Your task to perform on an android device: stop showing notifications on the lock screen Image 0: 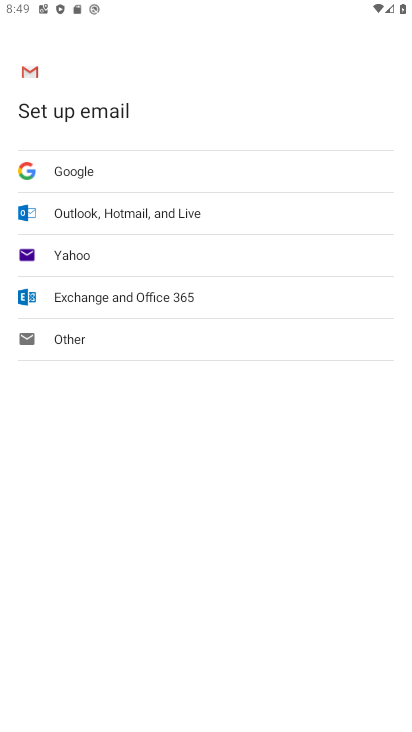
Step 0: press home button
Your task to perform on an android device: stop showing notifications on the lock screen Image 1: 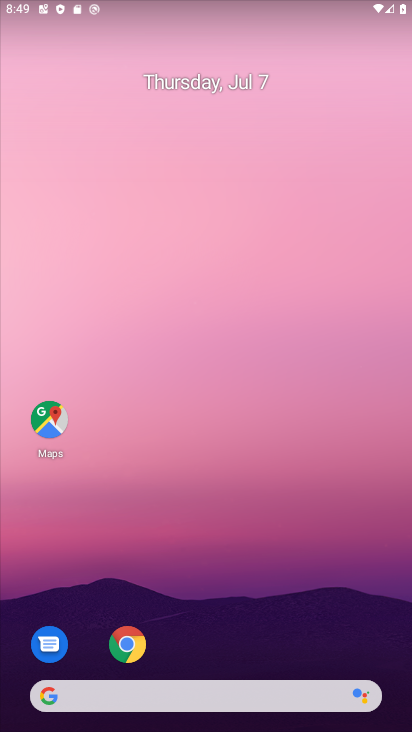
Step 1: drag from (193, 675) to (268, 198)
Your task to perform on an android device: stop showing notifications on the lock screen Image 2: 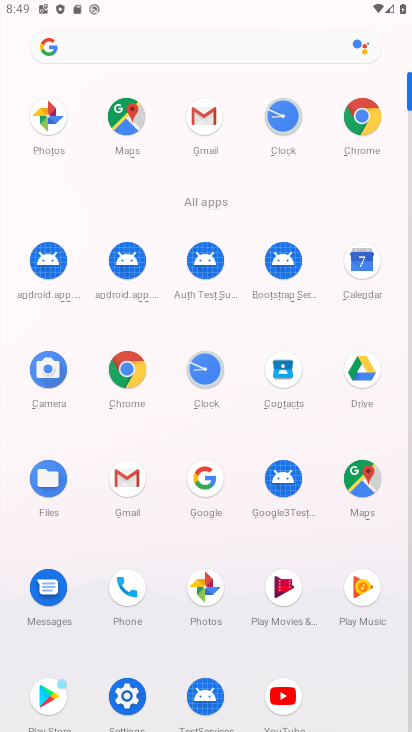
Step 2: click (118, 704)
Your task to perform on an android device: stop showing notifications on the lock screen Image 3: 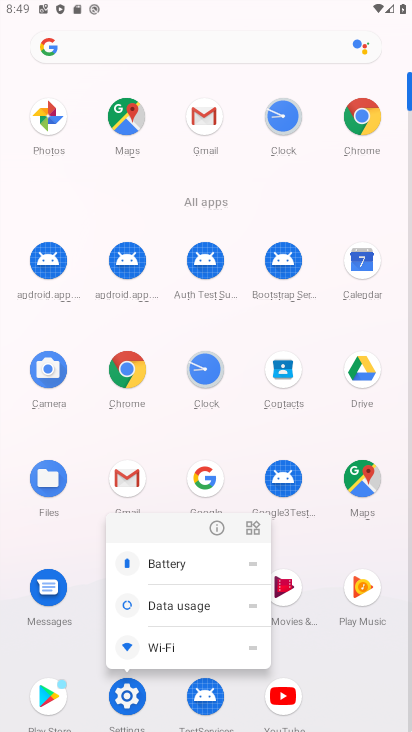
Step 3: click (121, 697)
Your task to perform on an android device: stop showing notifications on the lock screen Image 4: 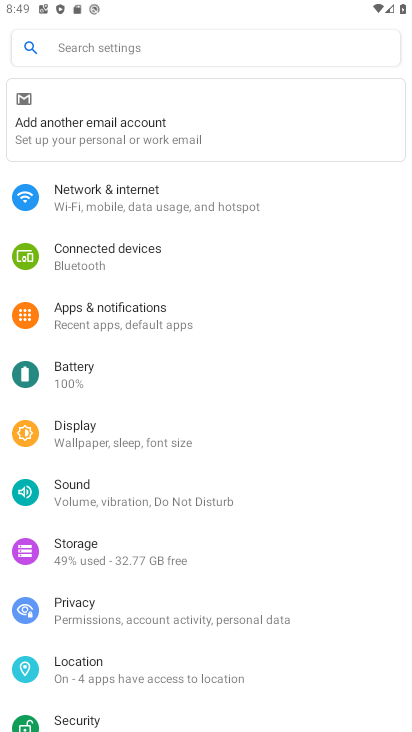
Step 4: click (153, 312)
Your task to perform on an android device: stop showing notifications on the lock screen Image 5: 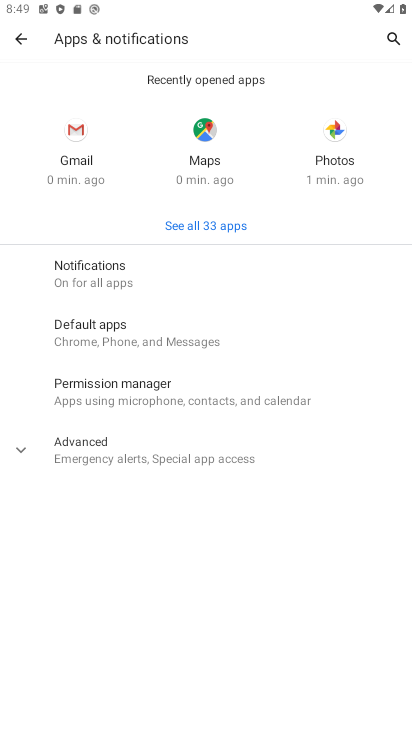
Step 5: click (122, 284)
Your task to perform on an android device: stop showing notifications on the lock screen Image 6: 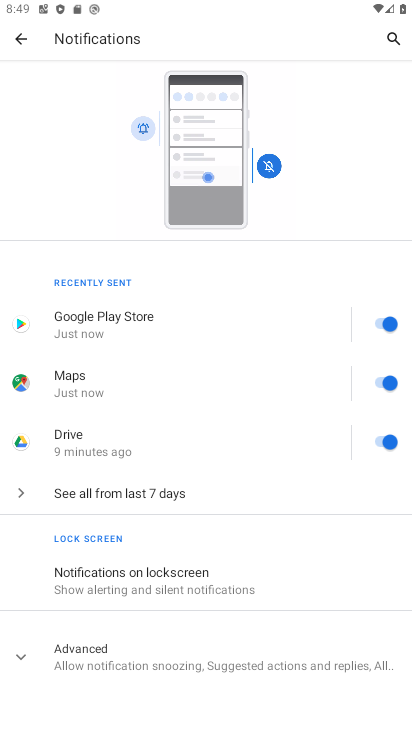
Step 6: click (182, 584)
Your task to perform on an android device: stop showing notifications on the lock screen Image 7: 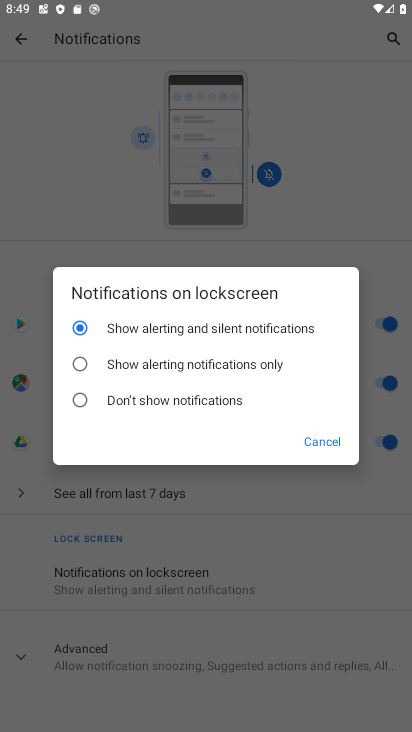
Step 7: click (211, 396)
Your task to perform on an android device: stop showing notifications on the lock screen Image 8: 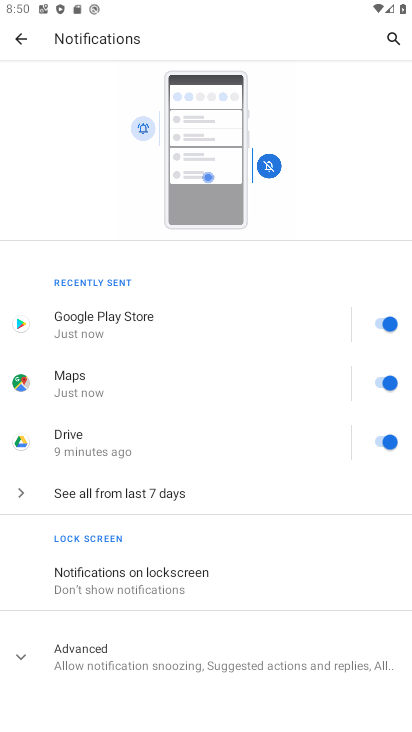
Step 8: task complete